Your task to perform on an android device: Go to internet settings Image 0: 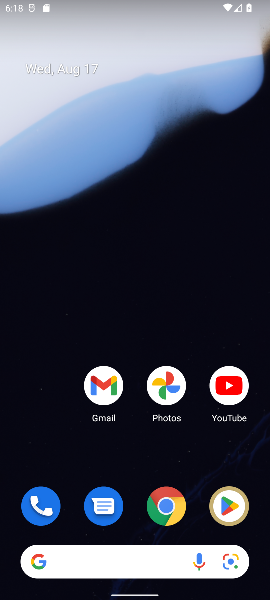
Step 0: drag from (129, 450) to (149, 41)
Your task to perform on an android device: Go to internet settings Image 1: 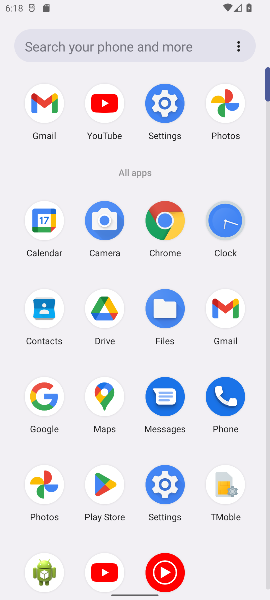
Step 1: click (184, 484)
Your task to perform on an android device: Go to internet settings Image 2: 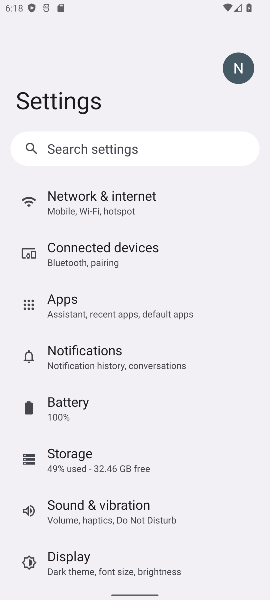
Step 2: click (92, 215)
Your task to perform on an android device: Go to internet settings Image 3: 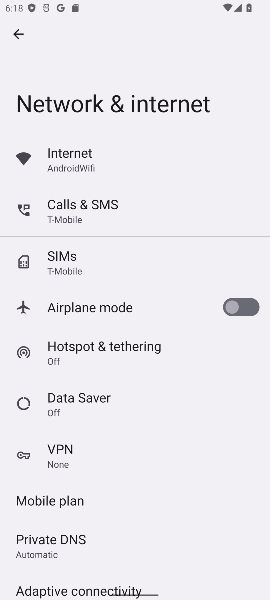
Step 3: click (78, 161)
Your task to perform on an android device: Go to internet settings Image 4: 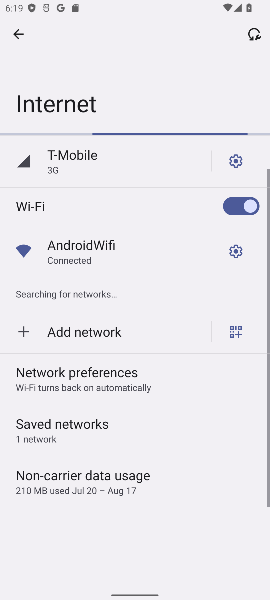
Step 4: task complete